Your task to perform on an android device: choose inbox layout in the gmail app Image 0: 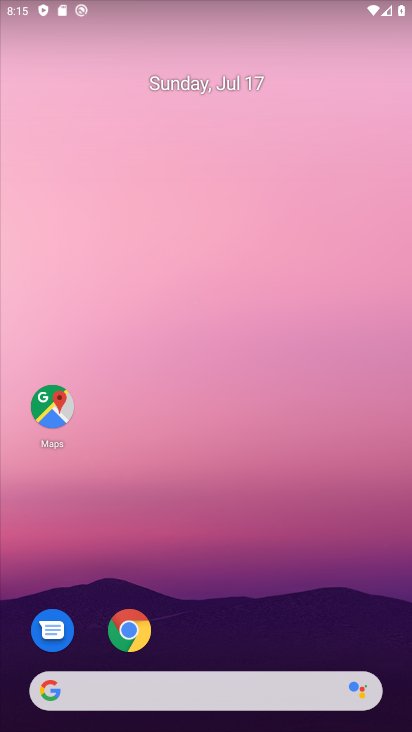
Step 0: drag from (187, 631) to (160, 115)
Your task to perform on an android device: choose inbox layout in the gmail app Image 1: 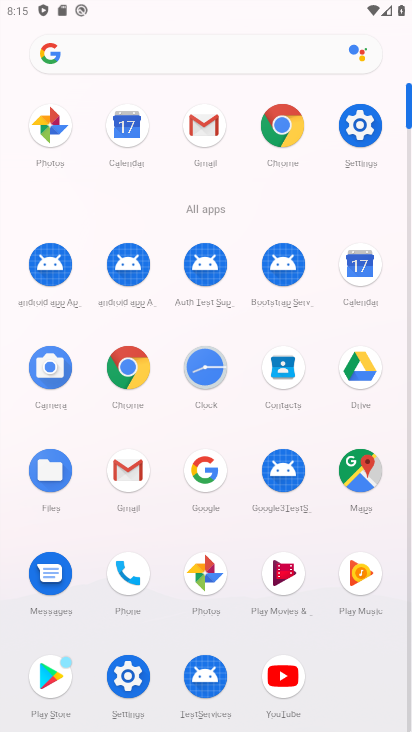
Step 1: click (202, 134)
Your task to perform on an android device: choose inbox layout in the gmail app Image 2: 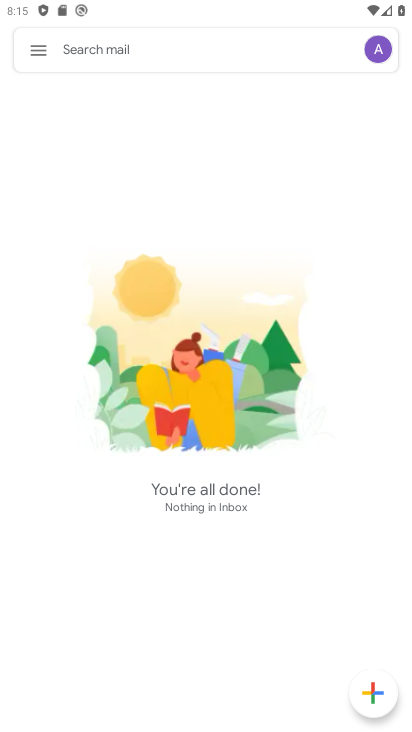
Step 2: click (27, 48)
Your task to perform on an android device: choose inbox layout in the gmail app Image 3: 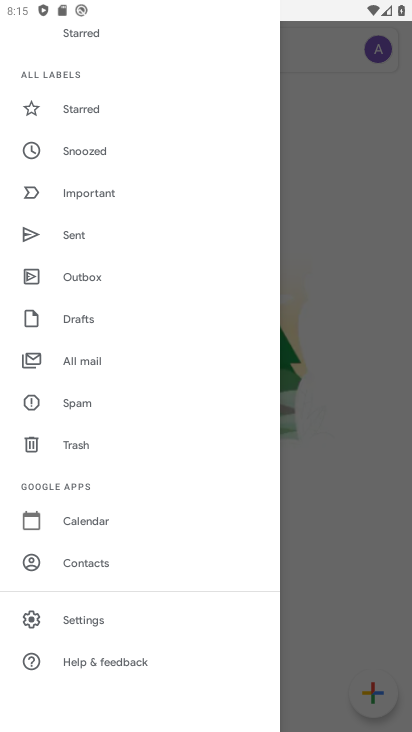
Step 3: click (70, 614)
Your task to perform on an android device: choose inbox layout in the gmail app Image 4: 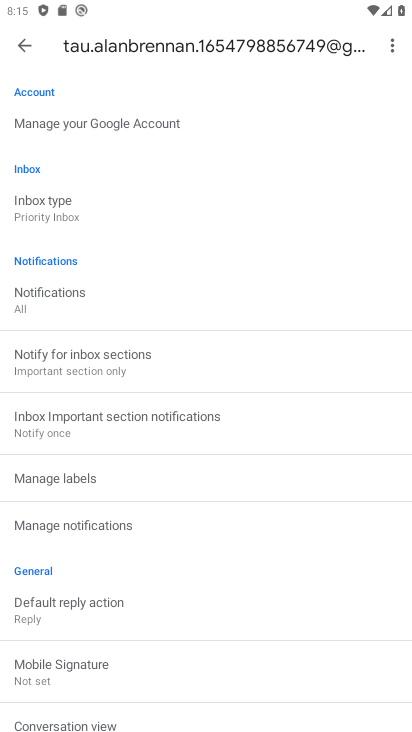
Step 4: click (27, 41)
Your task to perform on an android device: choose inbox layout in the gmail app Image 5: 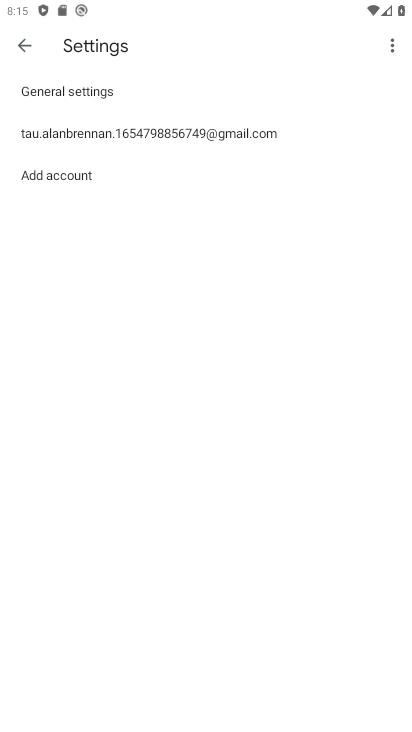
Step 5: click (33, 61)
Your task to perform on an android device: choose inbox layout in the gmail app Image 6: 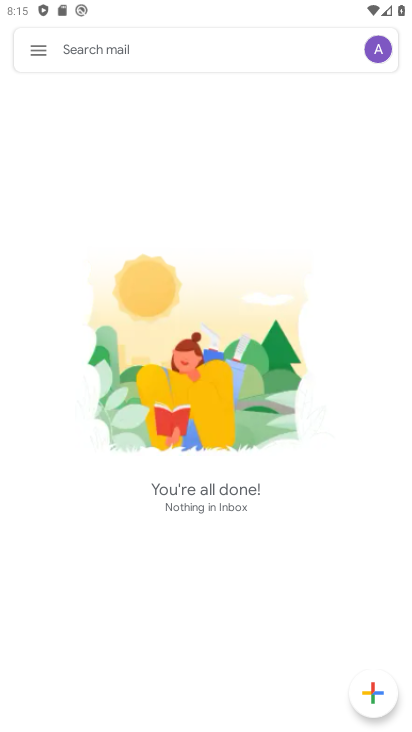
Step 6: click (38, 58)
Your task to perform on an android device: choose inbox layout in the gmail app Image 7: 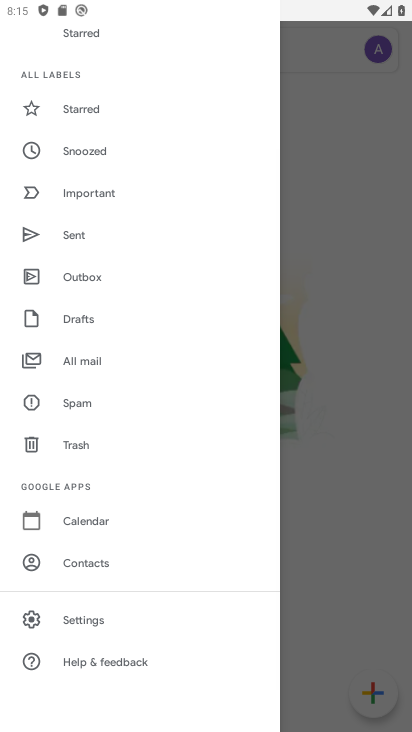
Step 7: drag from (87, 92) to (59, 394)
Your task to perform on an android device: choose inbox layout in the gmail app Image 8: 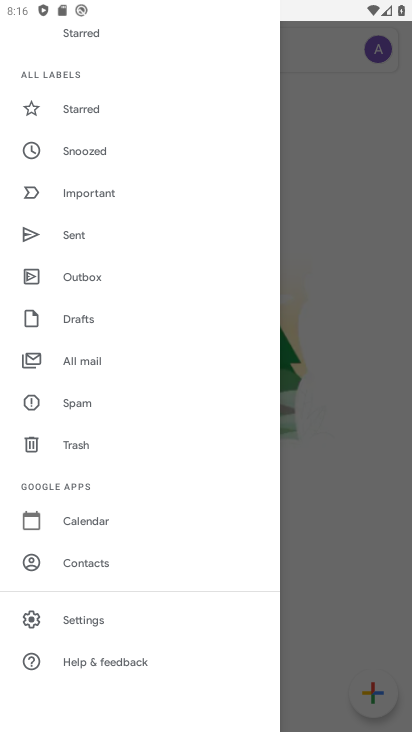
Step 8: drag from (105, 112) to (67, 318)
Your task to perform on an android device: choose inbox layout in the gmail app Image 9: 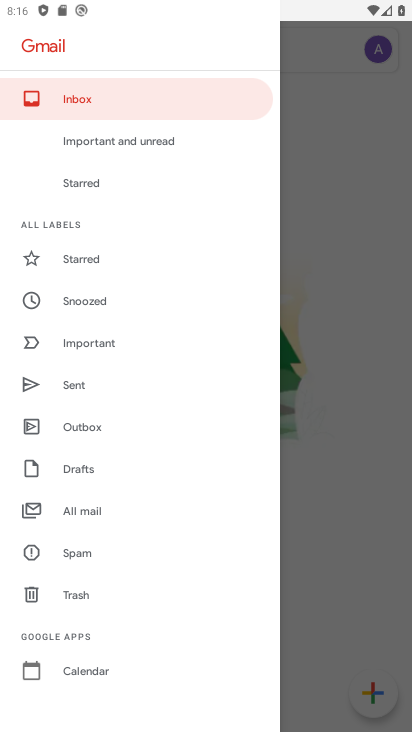
Step 9: click (79, 98)
Your task to perform on an android device: choose inbox layout in the gmail app Image 10: 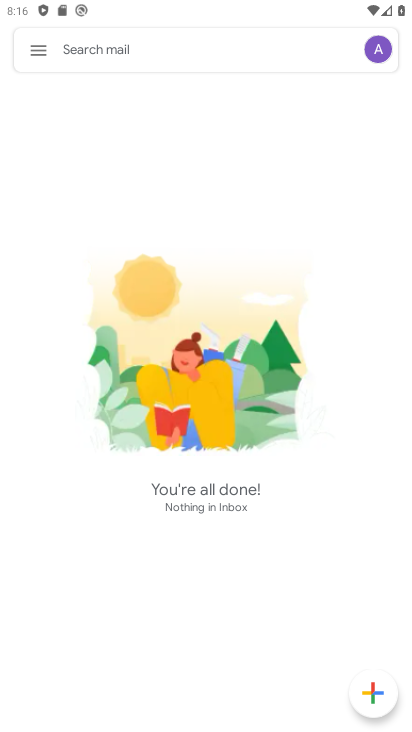
Step 10: task complete